Your task to perform on an android device: toggle wifi Image 0: 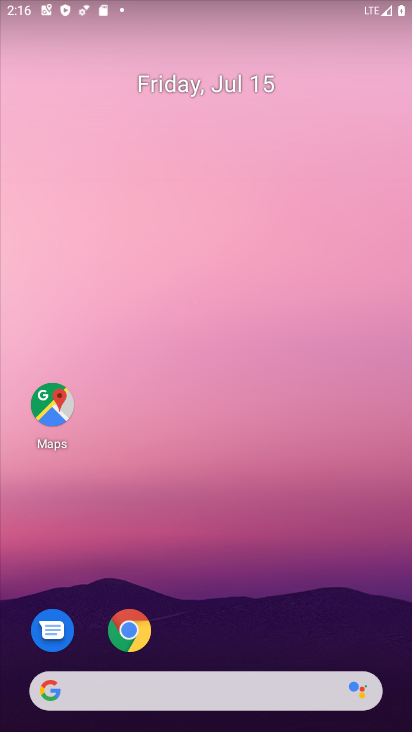
Step 0: press home button
Your task to perform on an android device: toggle wifi Image 1: 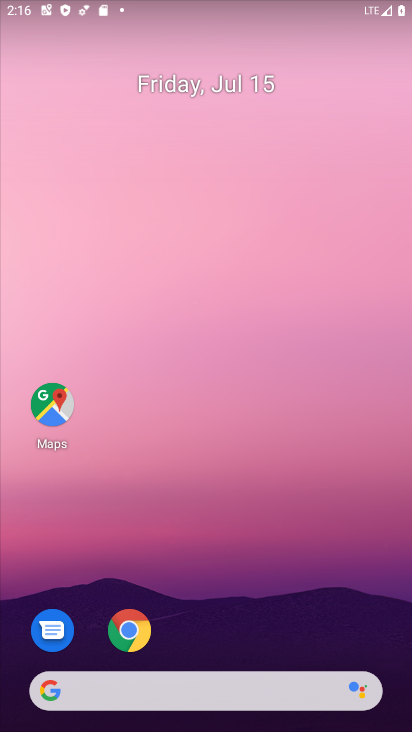
Step 1: drag from (291, 633) to (254, 171)
Your task to perform on an android device: toggle wifi Image 2: 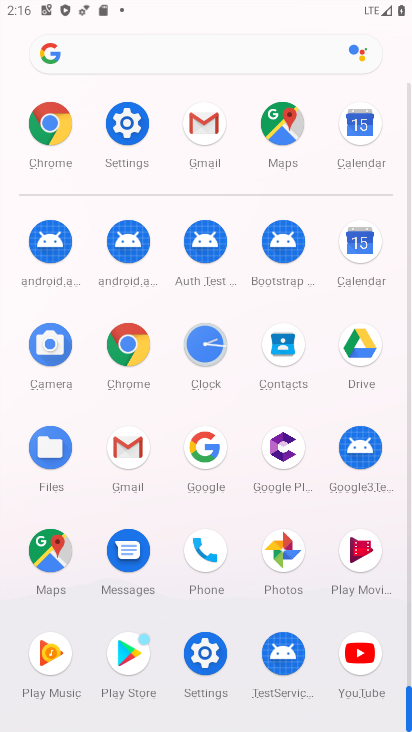
Step 2: click (120, 131)
Your task to perform on an android device: toggle wifi Image 3: 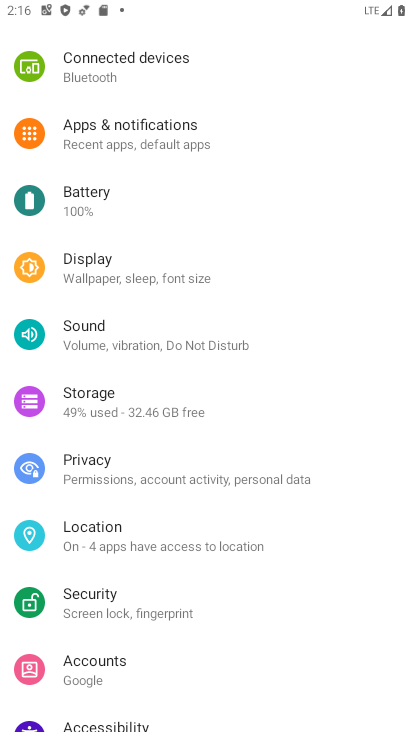
Step 3: drag from (229, 98) to (259, 639)
Your task to perform on an android device: toggle wifi Image 4: 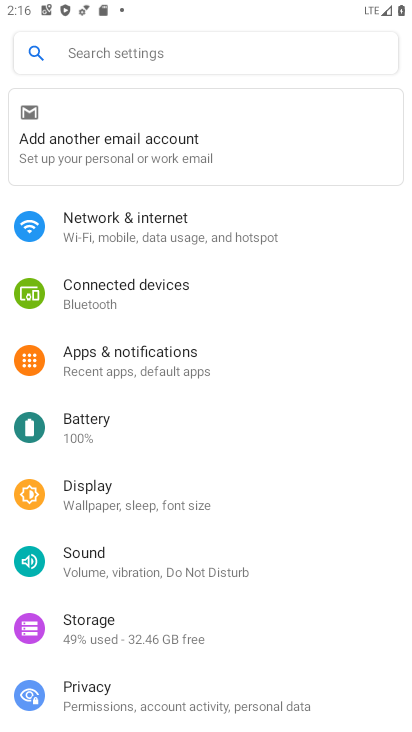
Step 4: click (137, 221)
Your task to perform on an android device: toggle wifi Image 5: 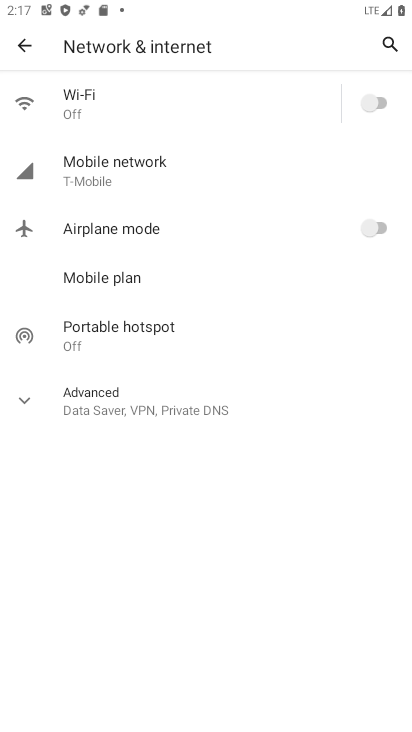
Step 5: click (380, 99)
Your task to perform on an android device: toggle wifi Image 6: 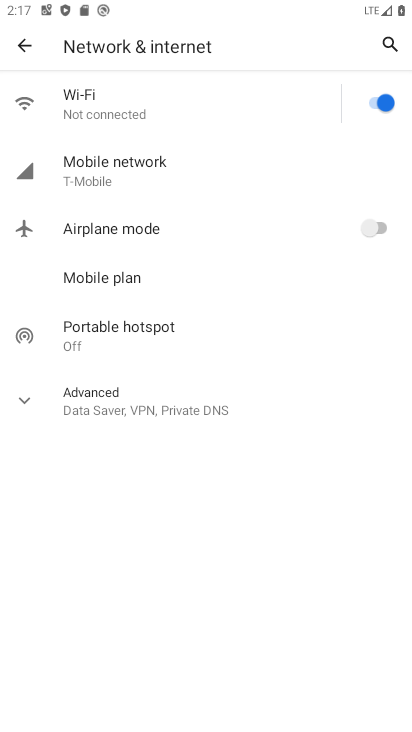
Step 6: task complete